Your task to perform on an android device: see tabs open on other devices in the chrome app Image 0: 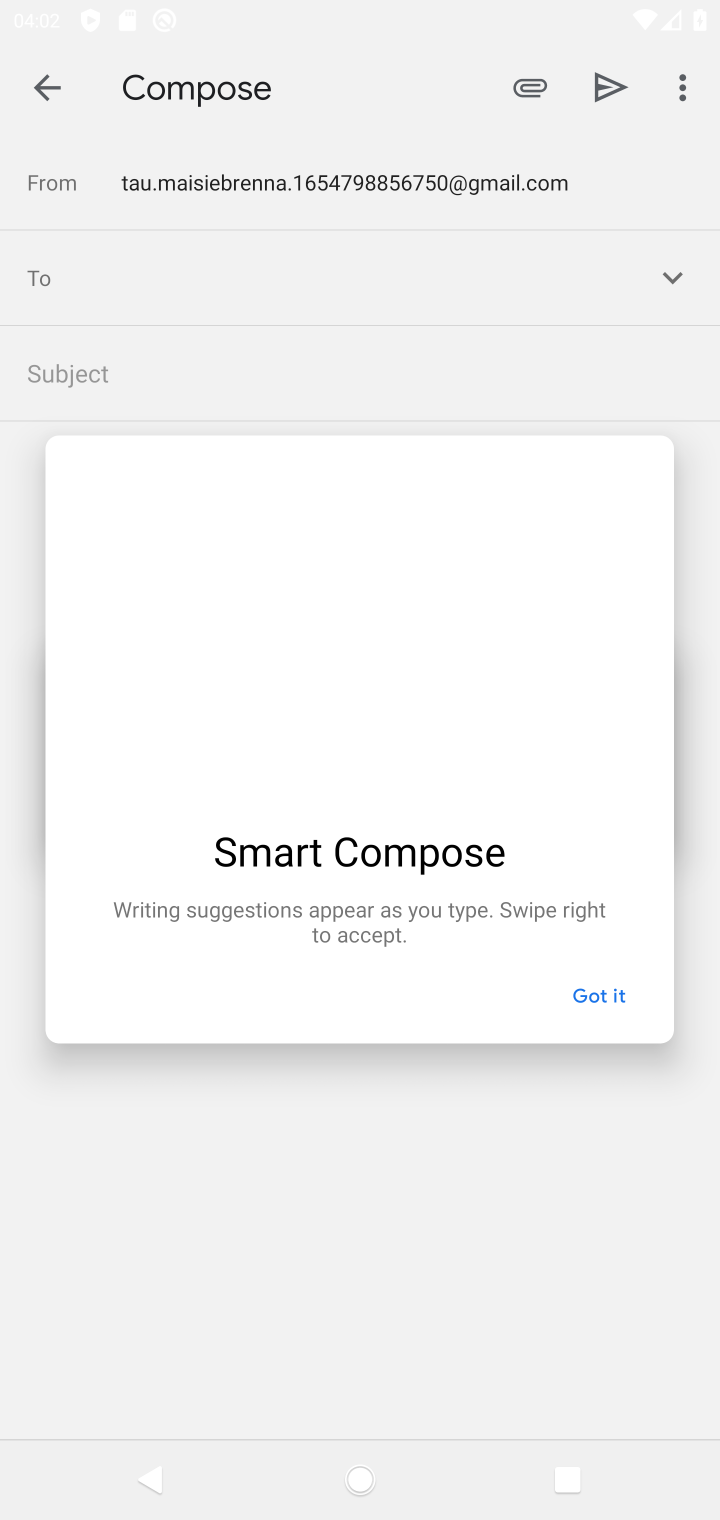
Step 0: press home button
Your task to perform on an android device: see tabs open on other devices in the chrome app Image 1: 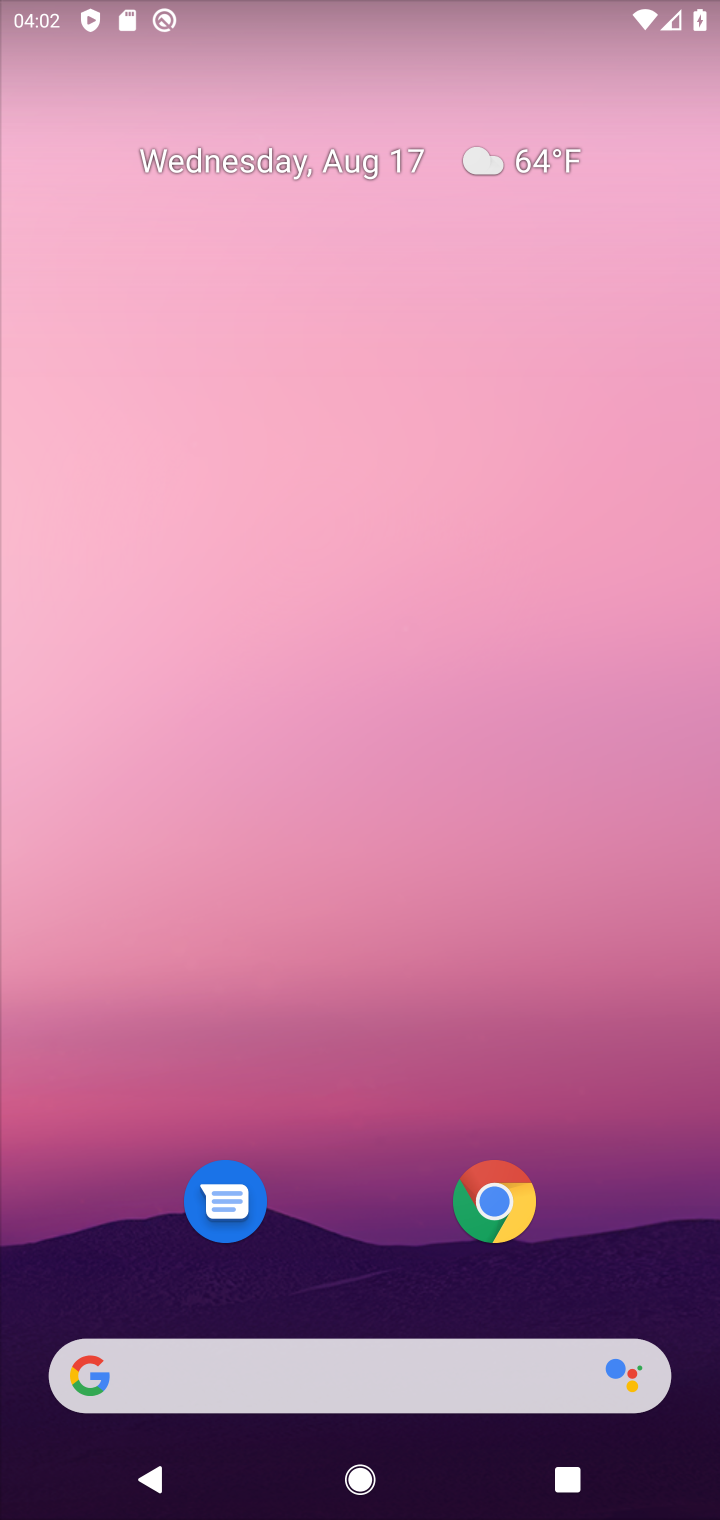
Step 1: drag from (317, 969) to (449, 3)
Your task to perform on an android device: see tabs open on other devices in the chrome app Image 2: 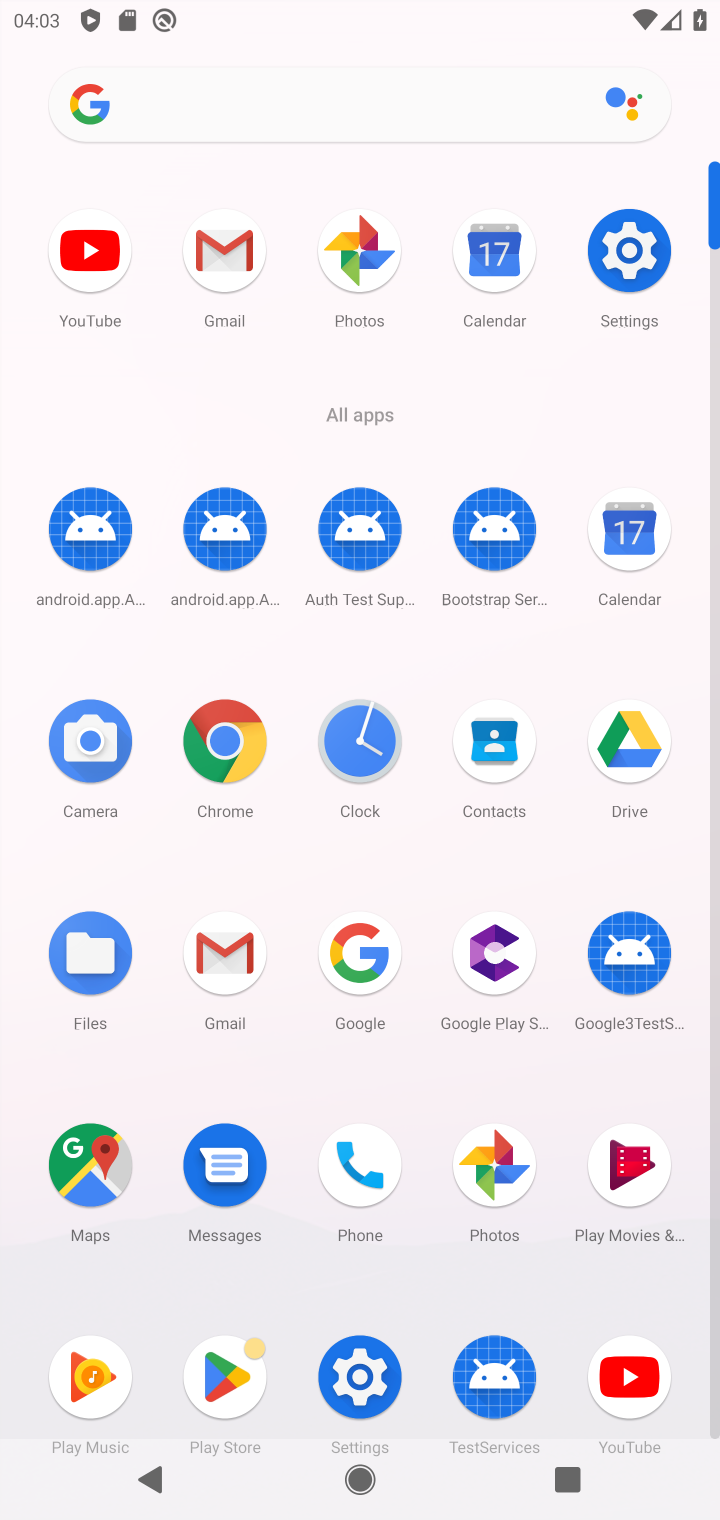
Step 2: click (223, 758)
Your task to perform on an android device: see tabs open on other devices in the chrome app Image 3: 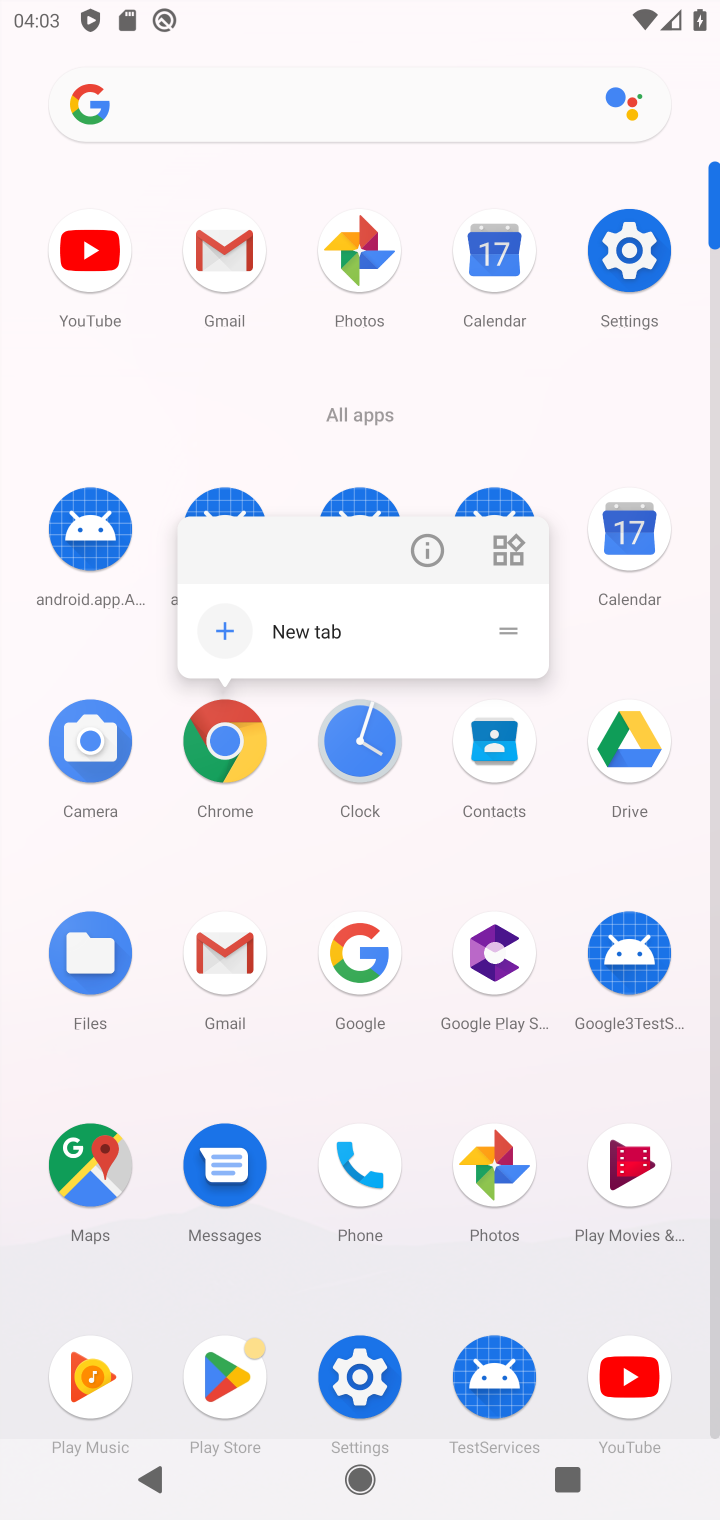
Step 3: click (223, 758)
Your task to perform on an android device: see tabs open on other devices in the chrome app Image 4: 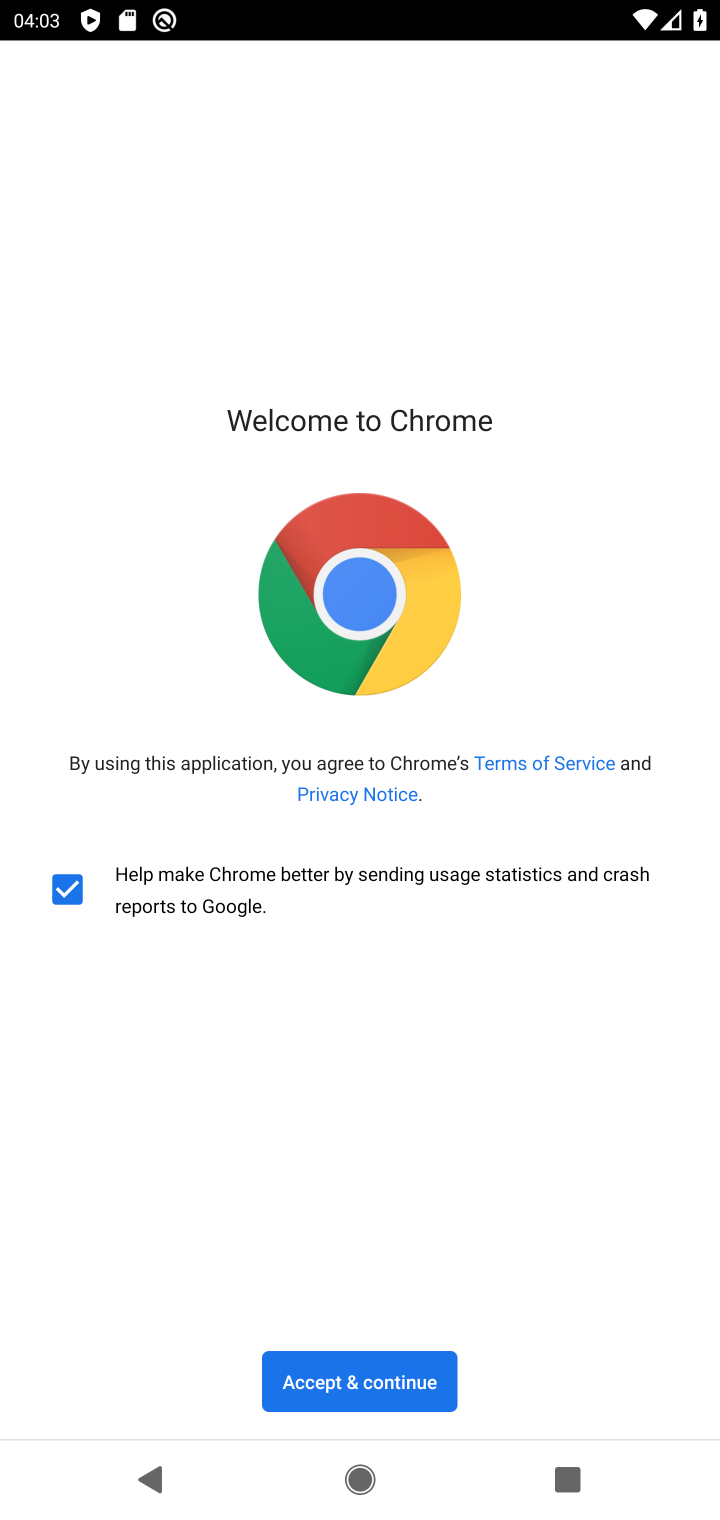
Step 4: click (372, 1377)
Your task to perform on an android device: see tabs open on other devices in the chrome app Image 5: 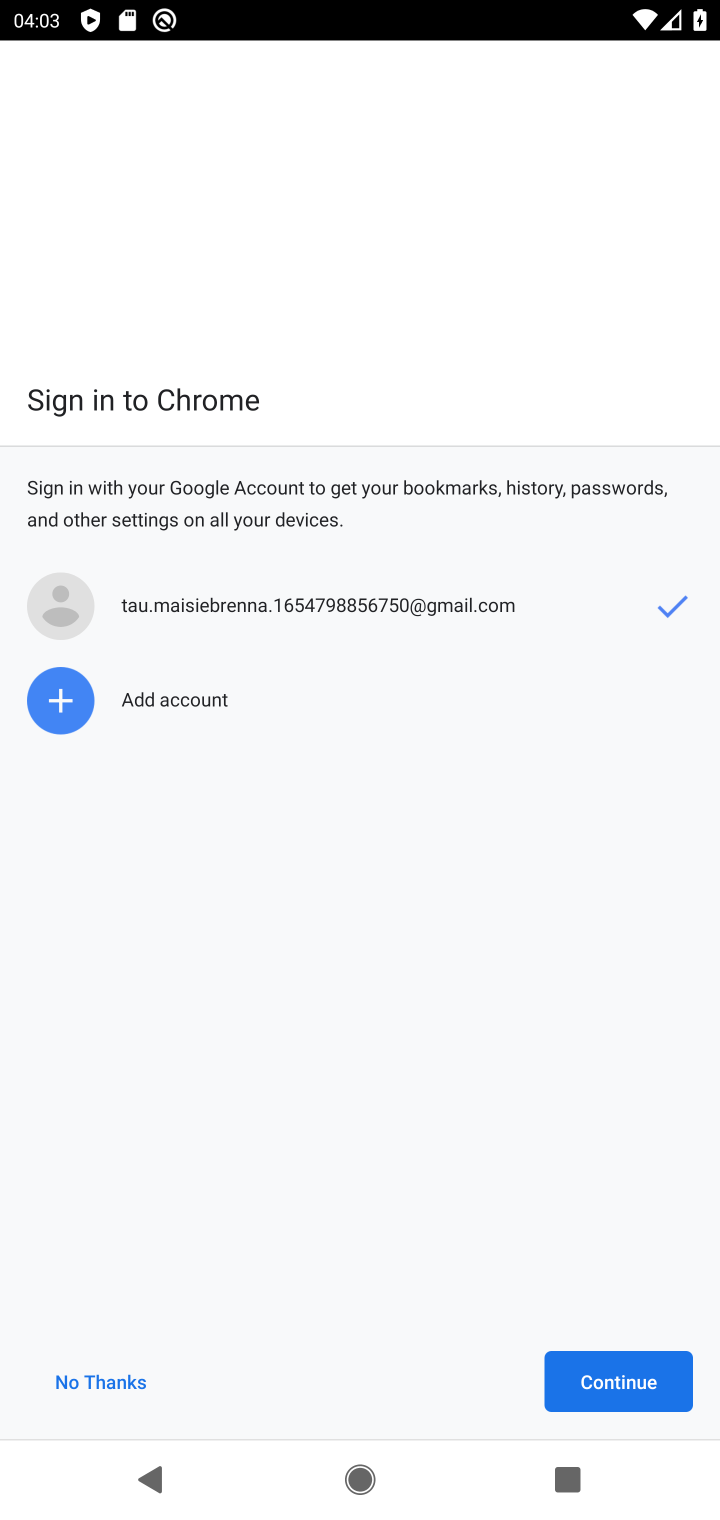
Step 5: click (648, 1367)
Your task to perform on an android device: see tabs open on other devices in the chrome app Image 6: 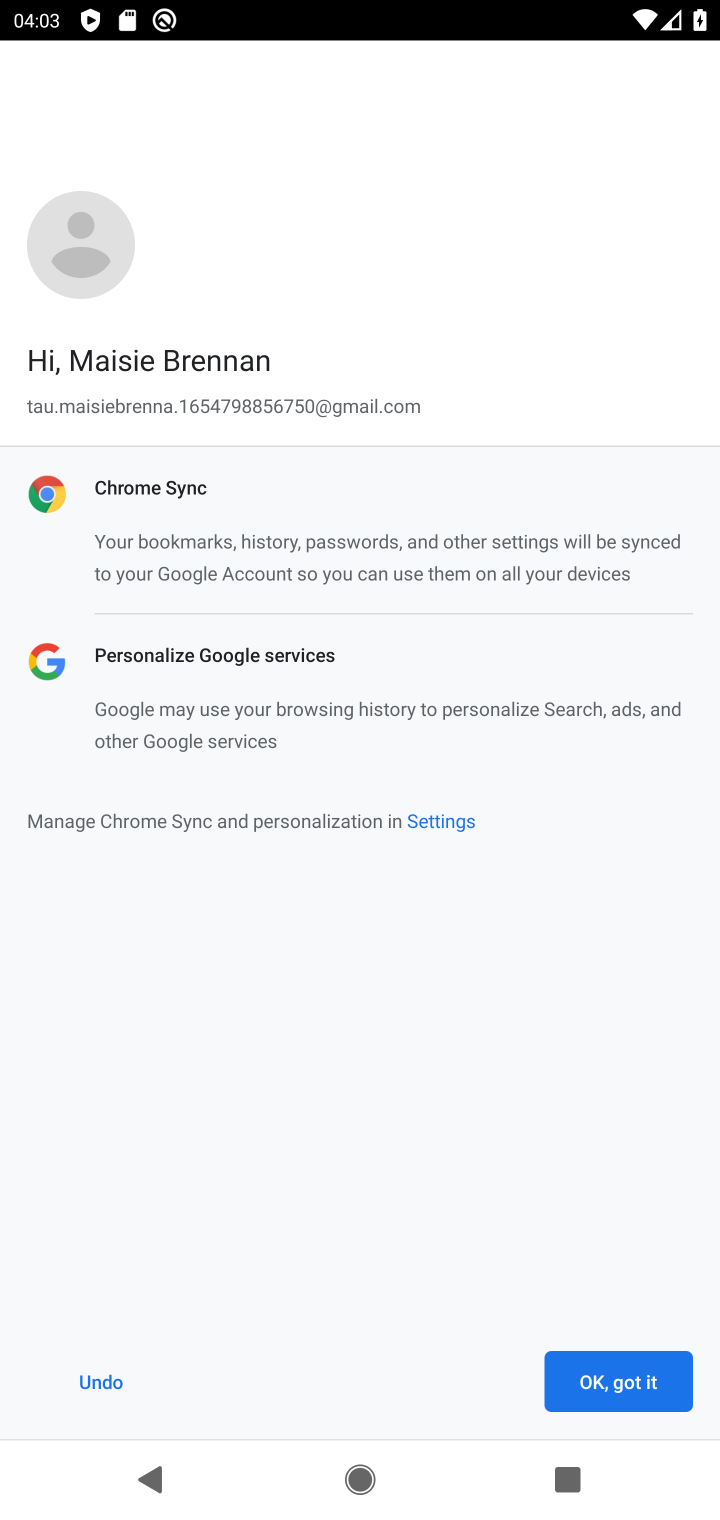
Step 6: click (585, 1392)
Your task to perform on an android device: see tabs open on other devices in the chrome app Image 7: 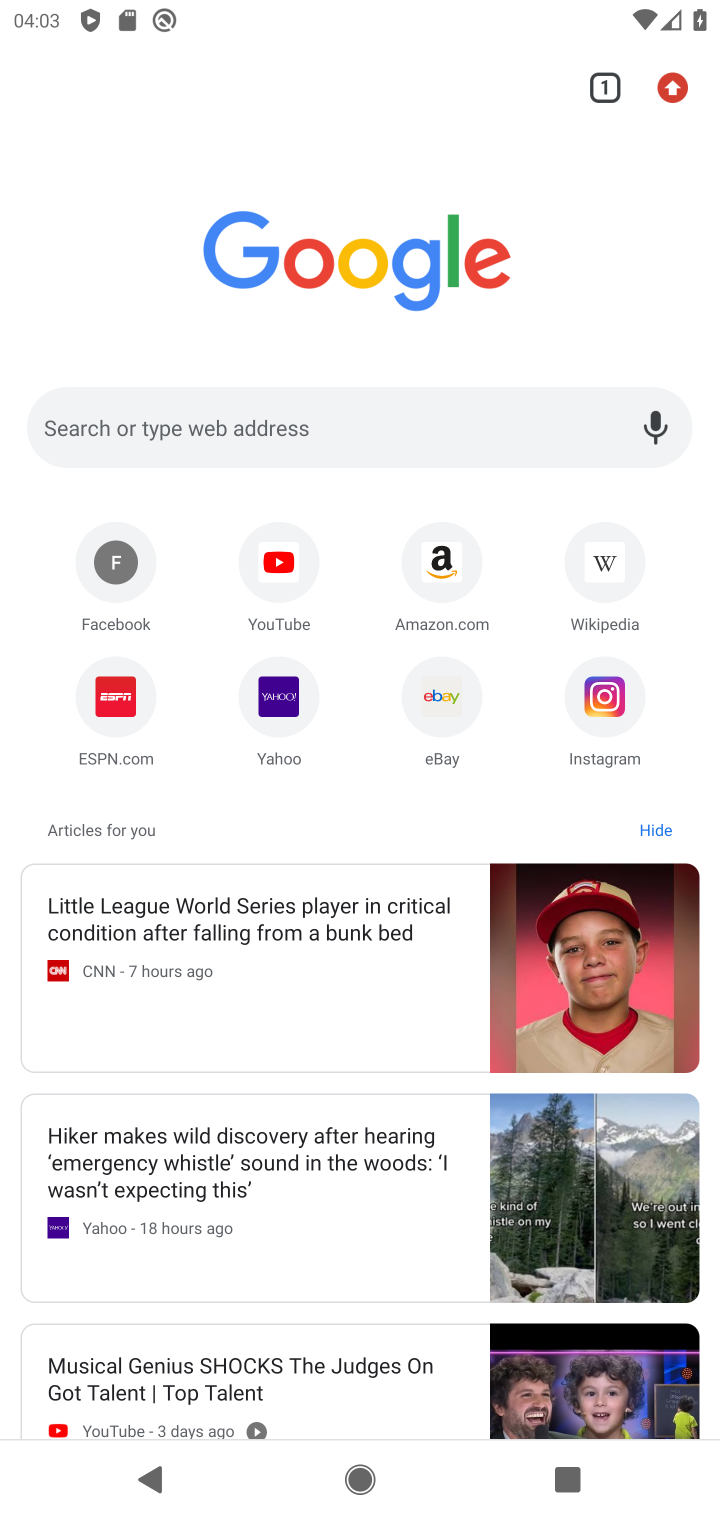
Step 7: click (666, 73)
Your task to perform on an android device: see tabs open on other devices in the chrome app Image 8: 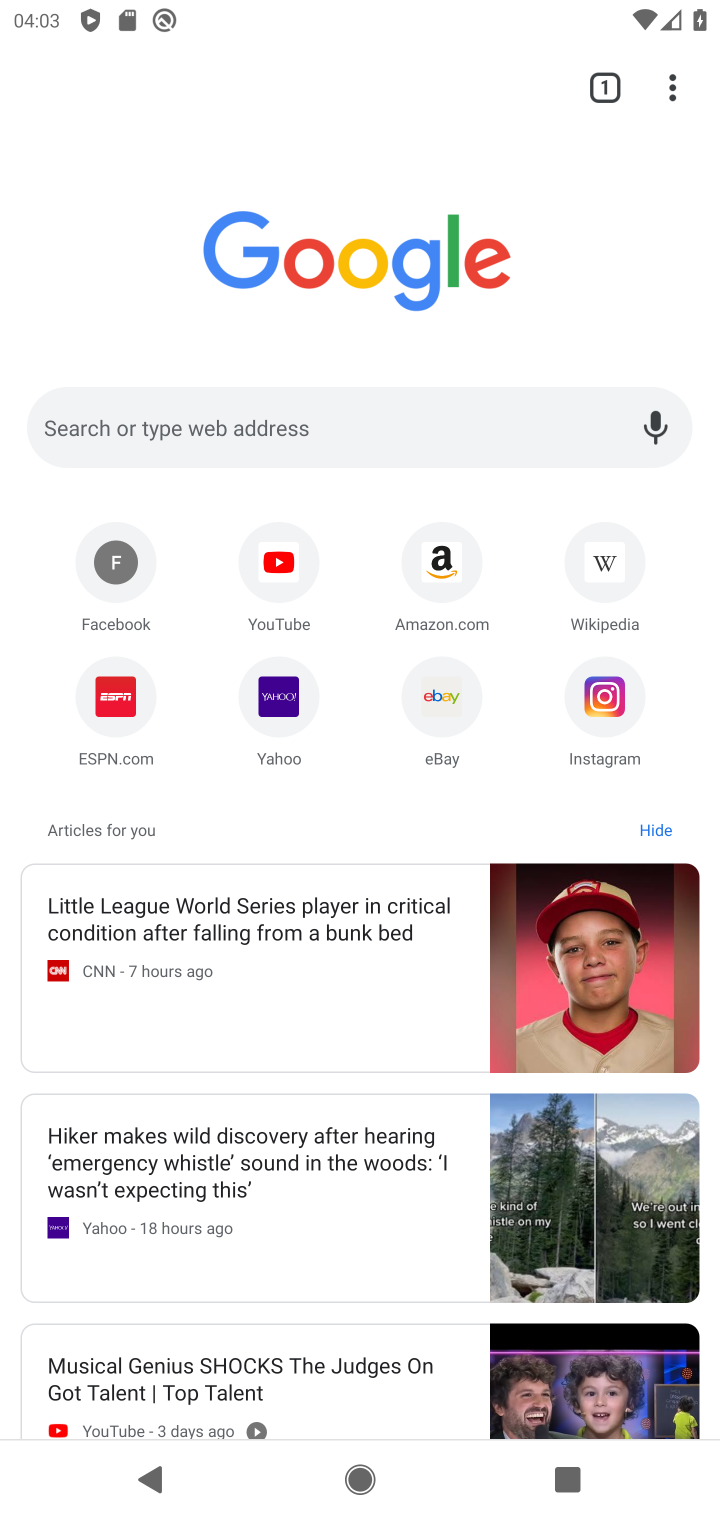
Step 8: click (688, 102)
Your task to perform on an android device: see tabs open on other devices in the chrome app Image 9: 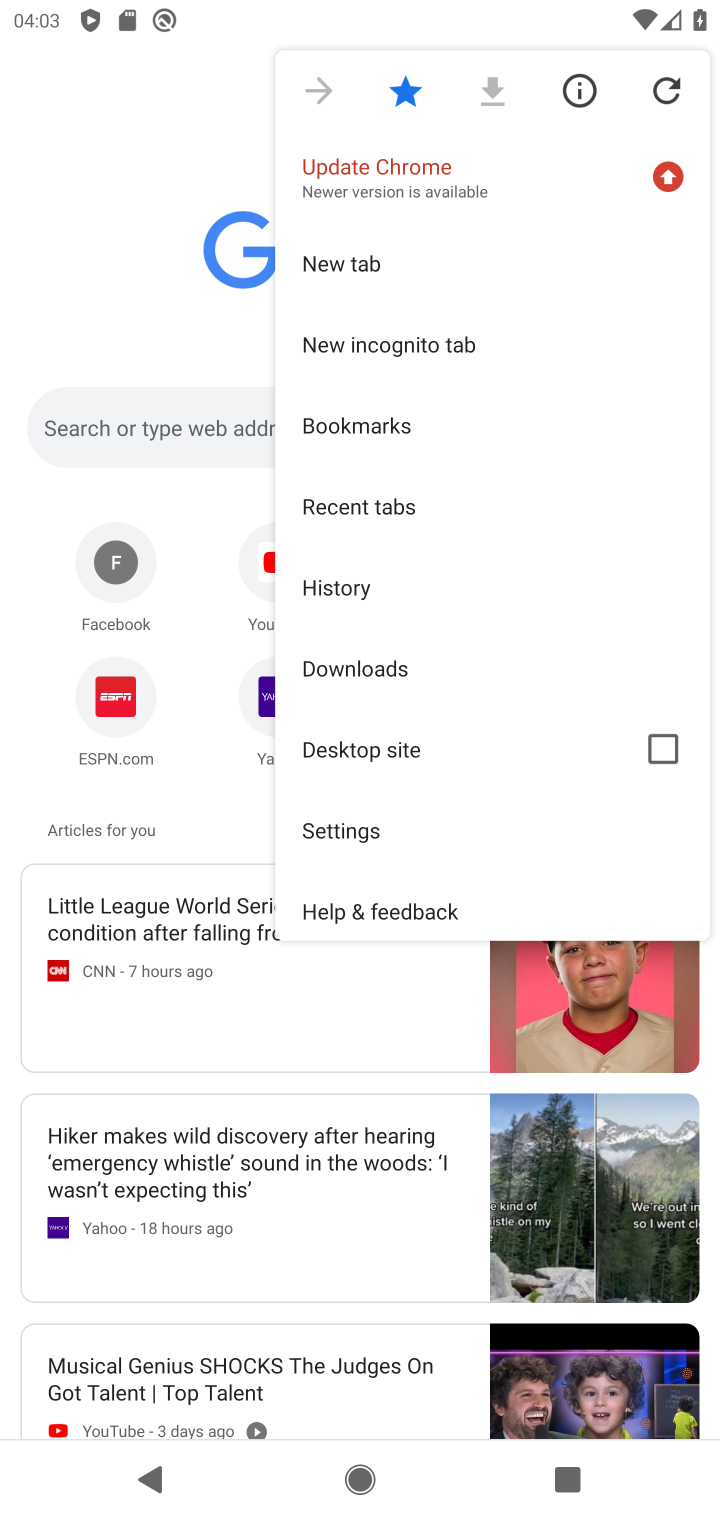
Step 9: click (365, 515)
Your task to perform on an android device: see tabs open on other devices in the chrome app Image 10: 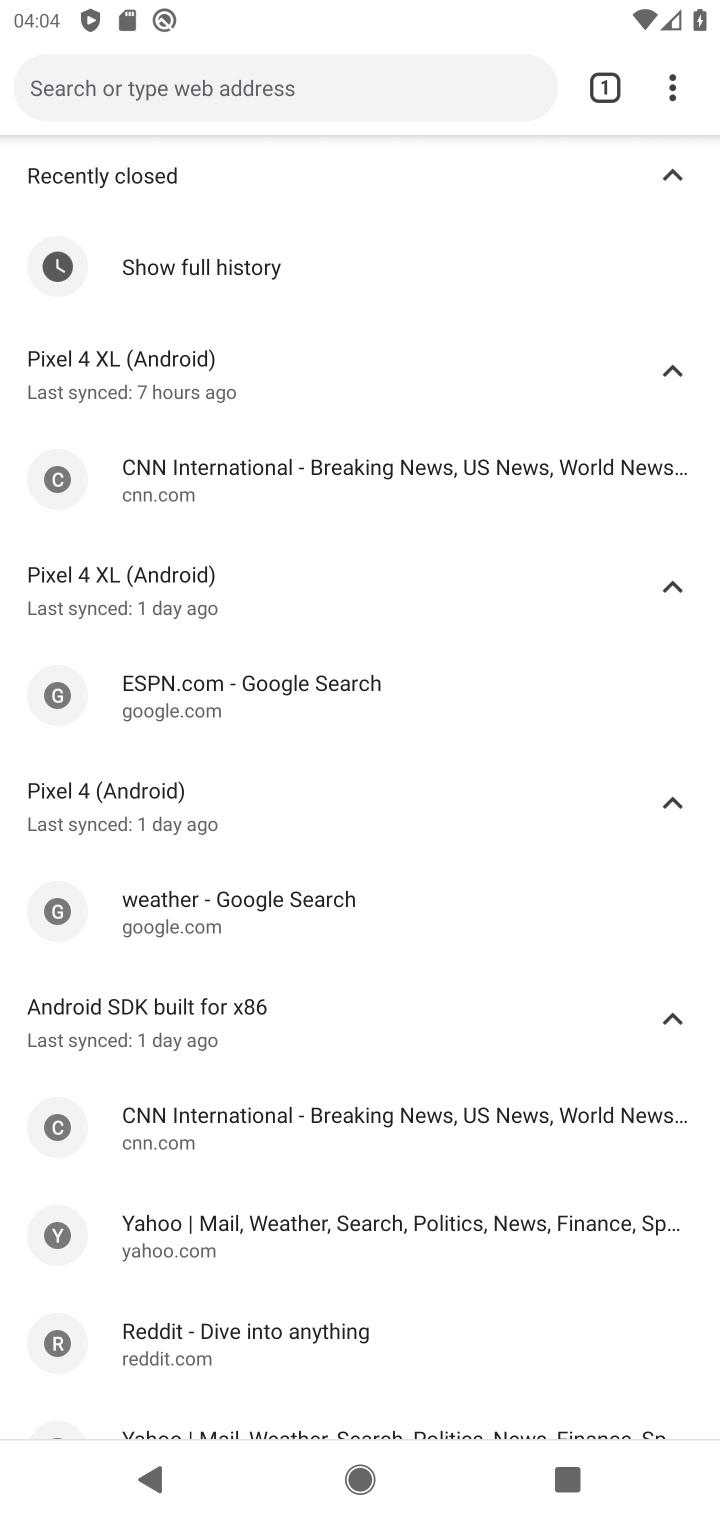
Step 10: task complete